Your task to perform on an android device: change the upload size in google photos Image 0: 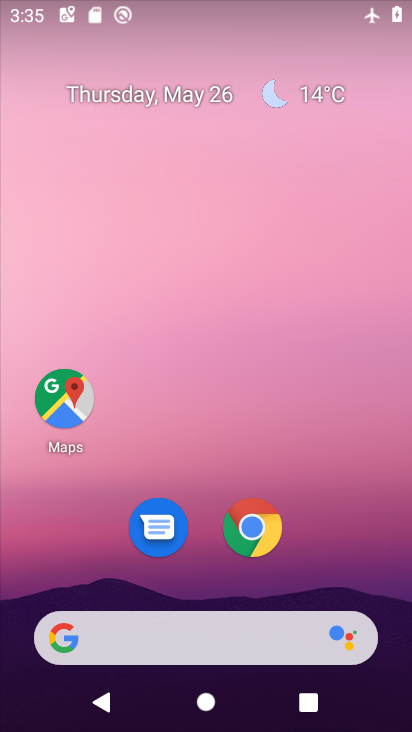
Step 0: drag from (384, 584) to (259, 131)
Your task to perform on an android device: change the upload size in google photos Image 1: 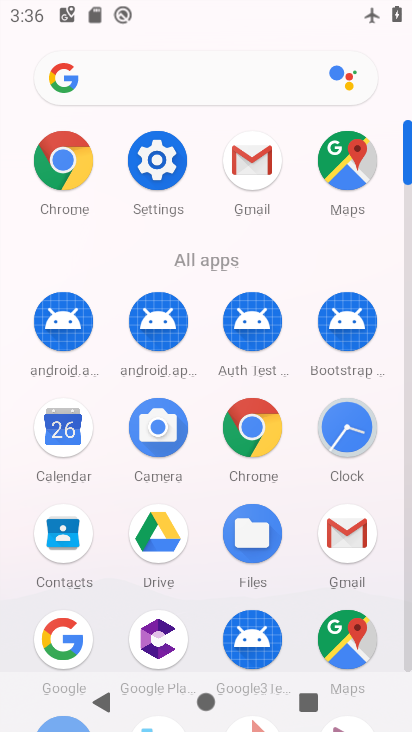
Step 1: click (410, 661)
Your task to perform on an android device: change the upload size in google photos Image 2: 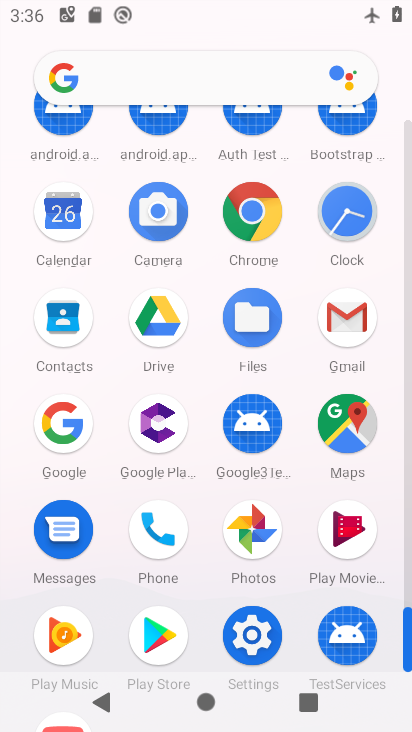
Step 2: click (257, 531)
Your task to perform on an android device: change the upload size in google photos Image 3: 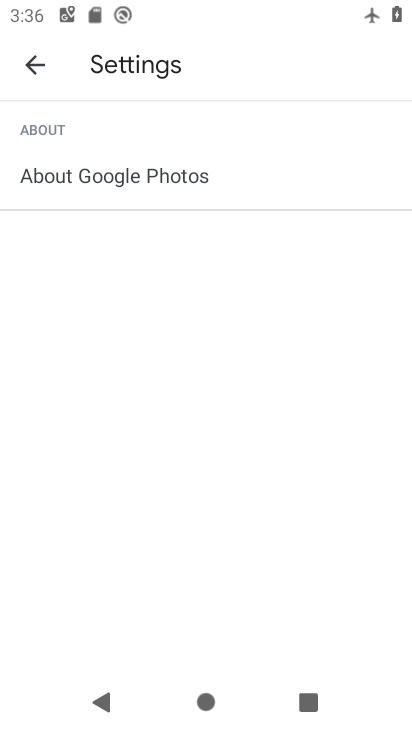
Step 3: click (31, 60)
Your task to perform on an android device: change the upload size in google photos Image 4: 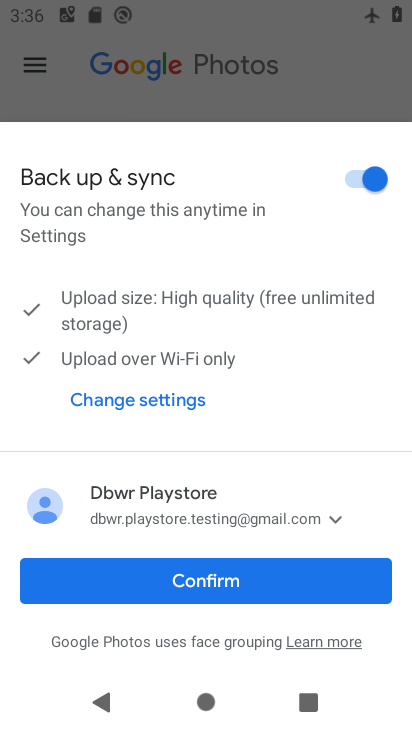
Step 4: click (226, 574)
Your task to perform on an android device: change the upload size in google photos Image 5: 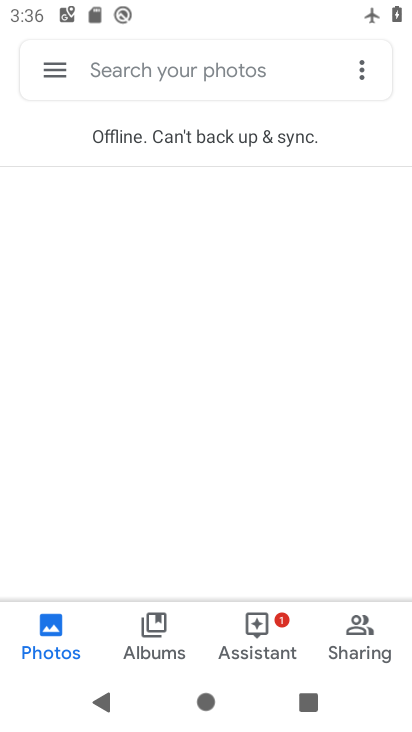
Step 5: click (49, 72)
Your task to perform on an android device: change the upload size in google photos Image 6: 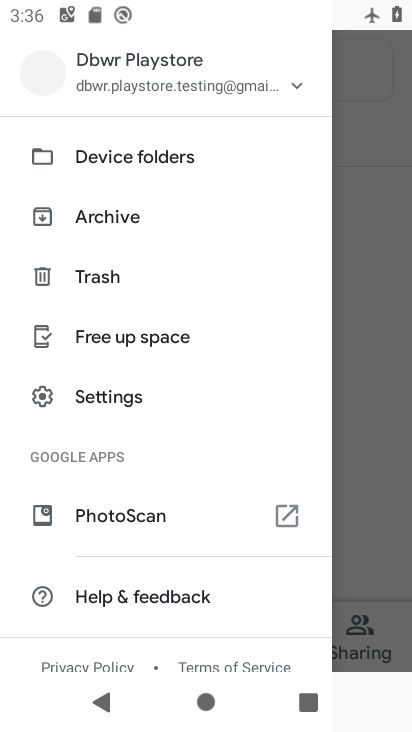
Step 6: click (139, 388)
Your task to perform on an android device: change the upload size in google photos Image 7: 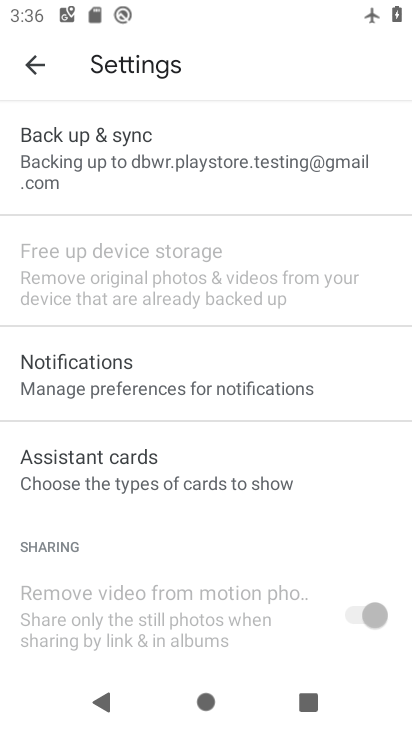
Step 7: click (154, 160)
Your task to perform on an android device: change the upload size in google photos Image 8: 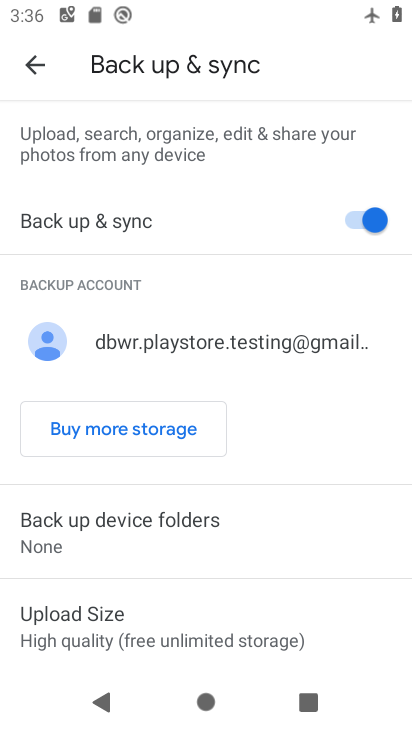
Step 8: click (216, 602)
Your task to perform on an android device: change the upload size in google photos Image 9: 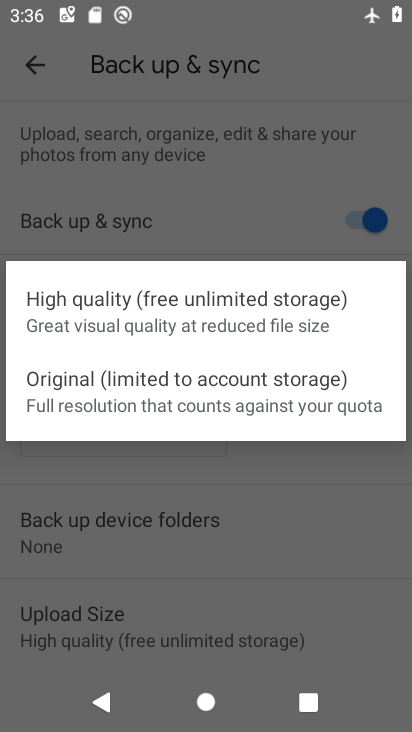
Step 9: click (225, 374)
Your task to perform on an android device: change the upload size in google photos Image 10: 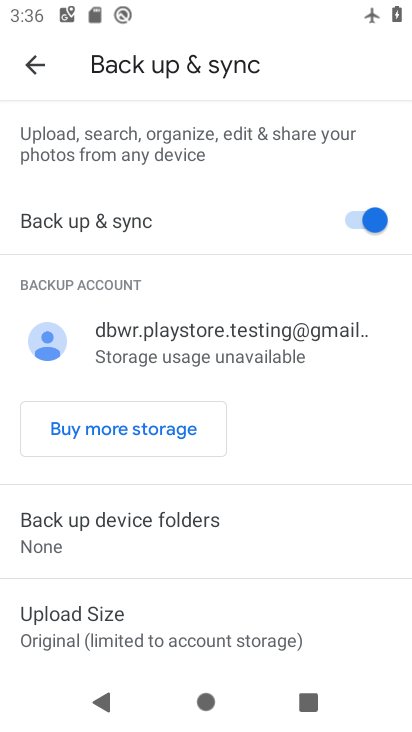
Step 10: task complete